Your task to perform on an android device: set default search engine in the chrome app Image 0: 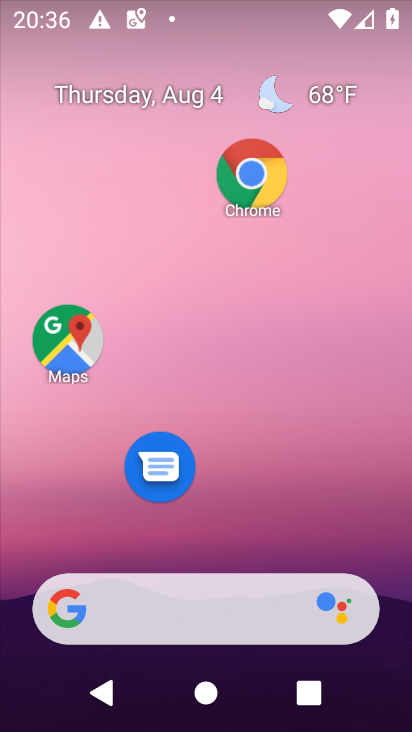
Step 0: drag from (318, 502) to (275, 51)
Your task to perform on an android device: set default search engine in the chrome app Image 1: 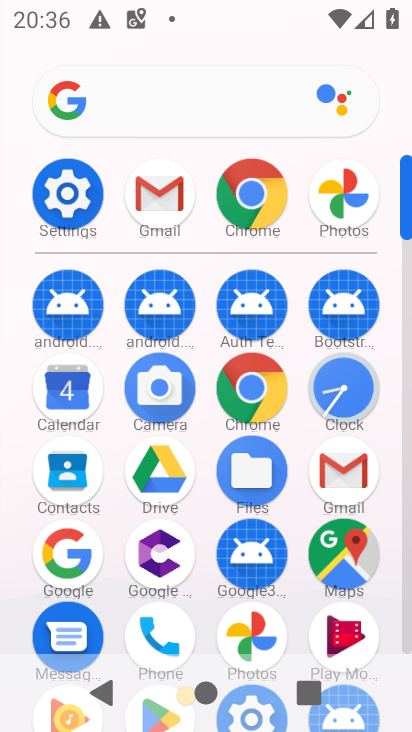
Step 1: click (248, 375)
Your task to perform on an android device: set default search engine in the chrome app Image 2: 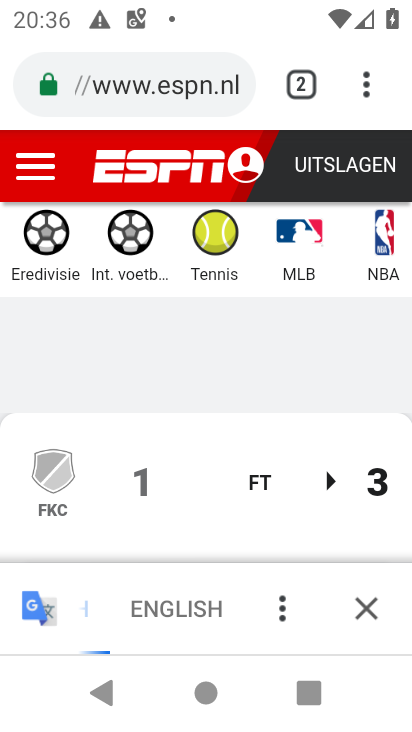
Step 2: drag from (365, 82) to (88, 503)
Your task to perform on an android device: set default search engine in the chrome app Image 3: 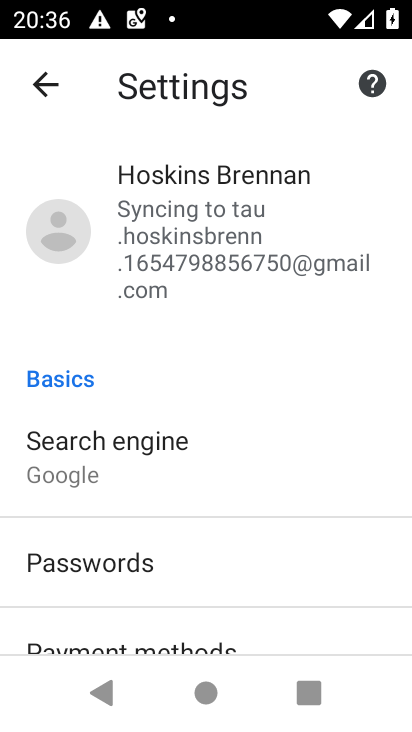
Step 3: click (127, 451)
Your task to perform on an android device: set default search engine in the chrome app Image 4: 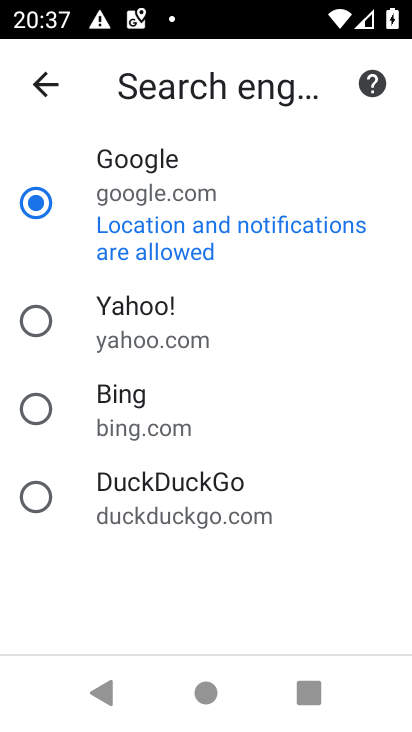
Step 4: task complete